Your task to perform on an android device: Turn off the flashlight Image 0: 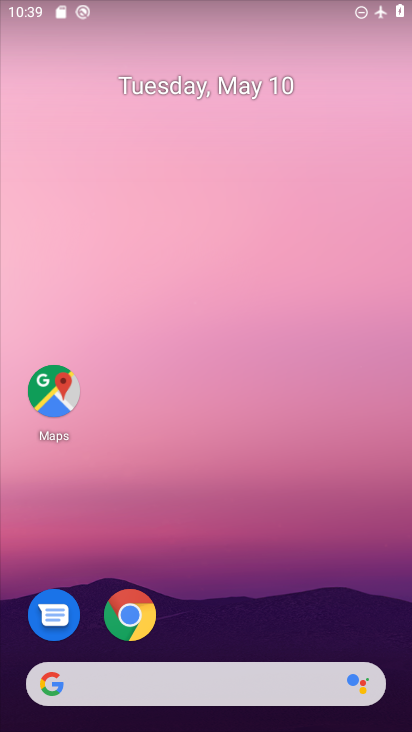
Step 0: drag from (214, 590) to (274, 201)
Your task to perform on an android device: Turn off the flashlight Image 1: 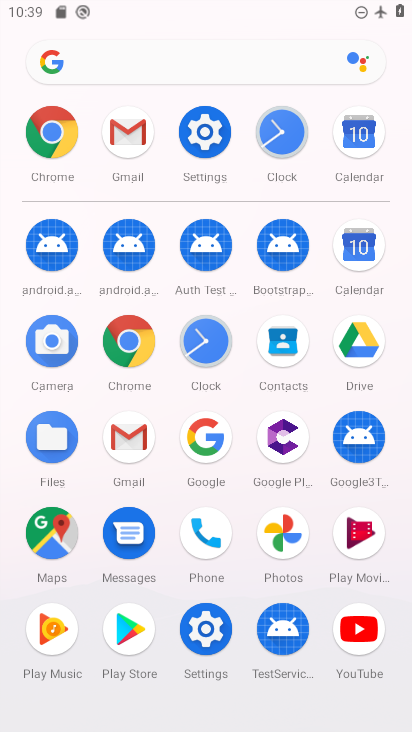
Step 1: click (209, 130)
Your task to perform on an android device: Turn off the flashlight Image 2: 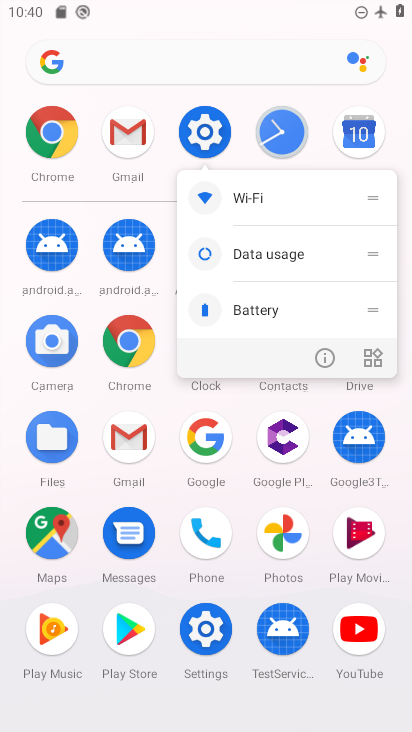
Step 2: click (318, 352)
Your task to perform on an android device: Turn off the flashlight Image 3: 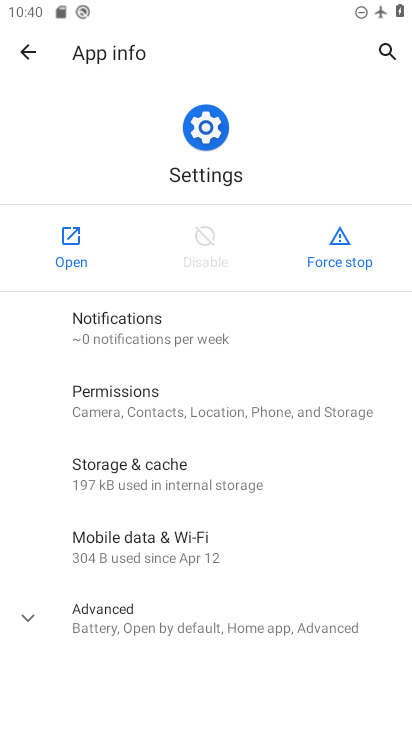
Step 3: click (71, 249)
Your task to perform on an android device: Turn off the flashlight Image 4: 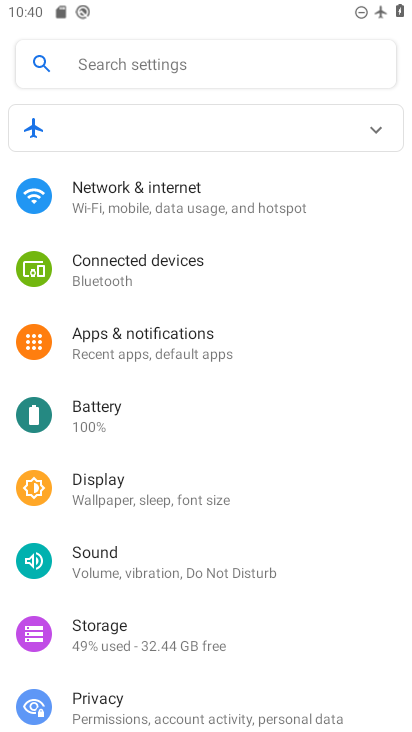
Step 4: click (174, 61)
Your task to perform on an android device: Turn off the flashlight Image 5: 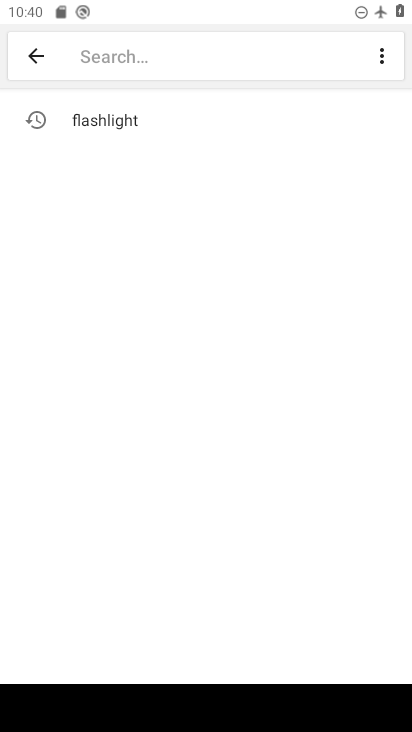
Step 5: click (107, 99)
Your task to perform on an android device: Turn off the flashlight Image 6: 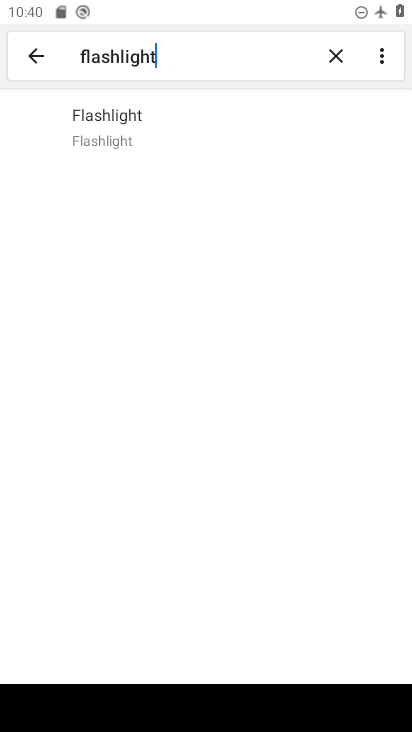
Step 6: click (157, 126)
Your task to perform on an android device: Turn off the flashlight Image 7: 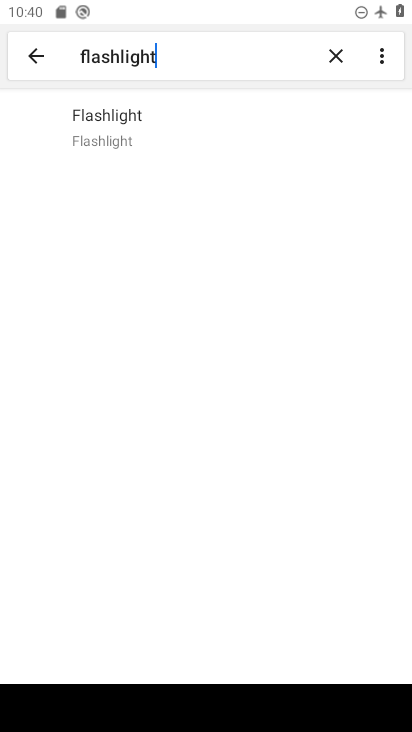
Step 7: click (157, 126)
Your task to perform on an android device: Turn off the flashlight Image 8: 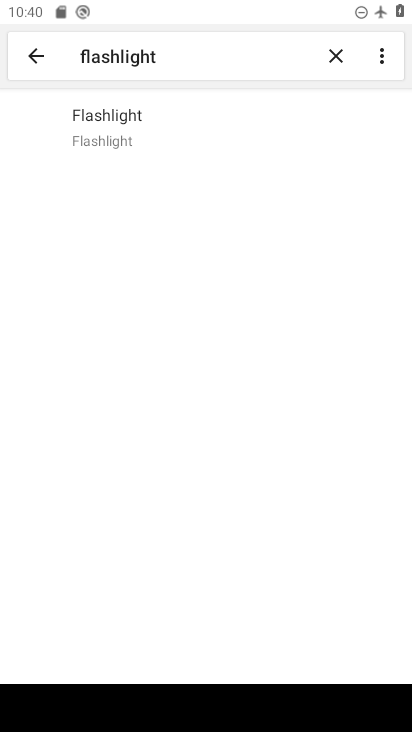
Step 8: click (157, 127)
Your task to perform on an android device: Turn off the flashlight Image 9: 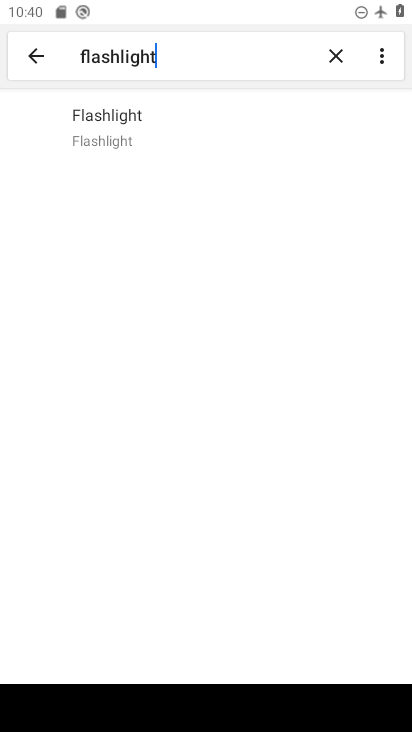
Step 9: click (186, 136)
Your task to perform on an android device: Turn off the flashlight Image 10: 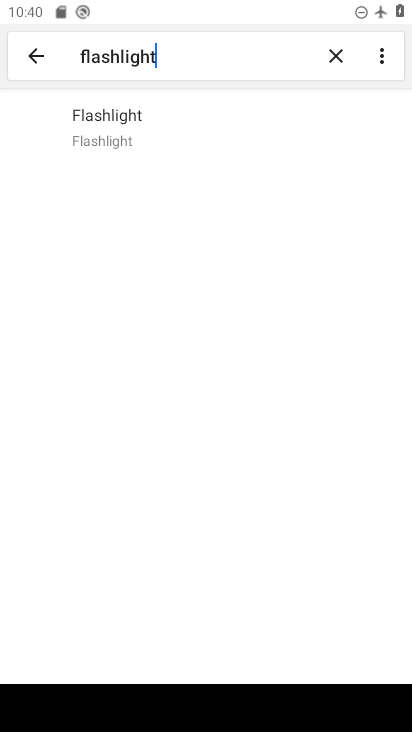
Step 10: click (186, 136)
Your task to perform on an android device: Turn off the flashlight Image 11: 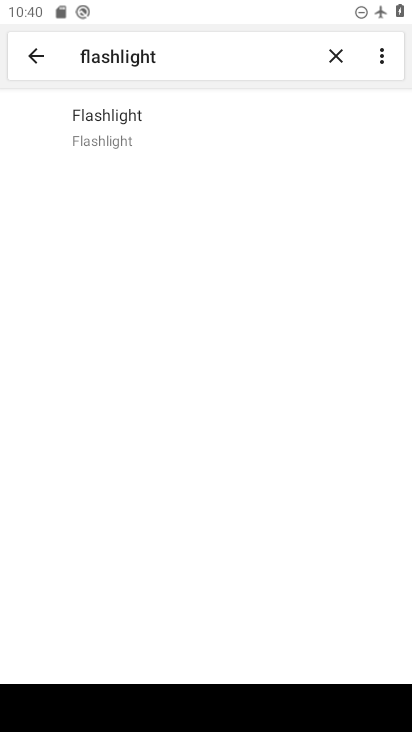
Step 11: click (186, 136)
Your task to perform on an android device: Turn off the flashlight Image 12: 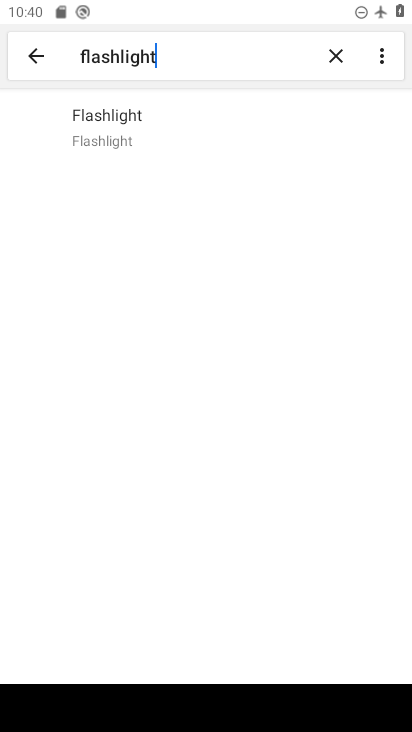
Step 12: click (217, 144)
Your task to perform on an android device: Turn off the flashlight Image 13: 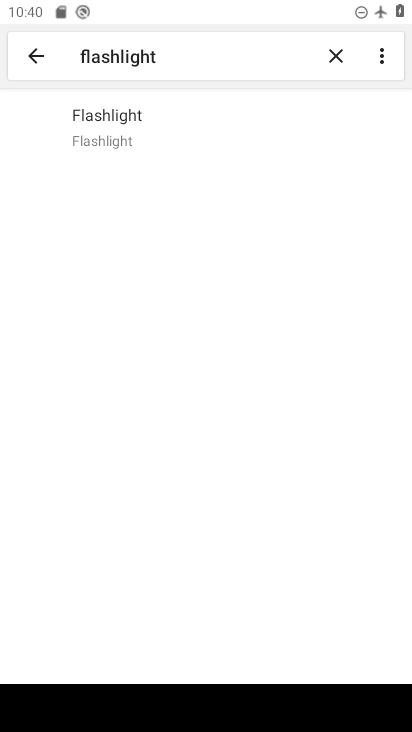
Step 13: task complete